Your task to perform on an android device: turn on location history Image 0: 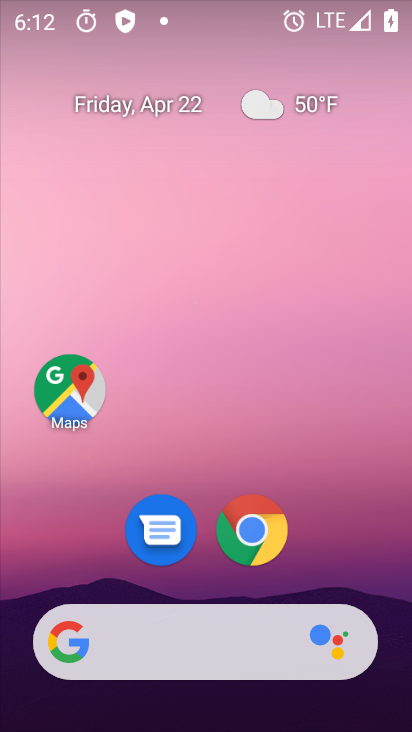
Step 0: drag from (329, 510) to (250, 28)
Your task to perform on an android device: turn on location history Image 1: 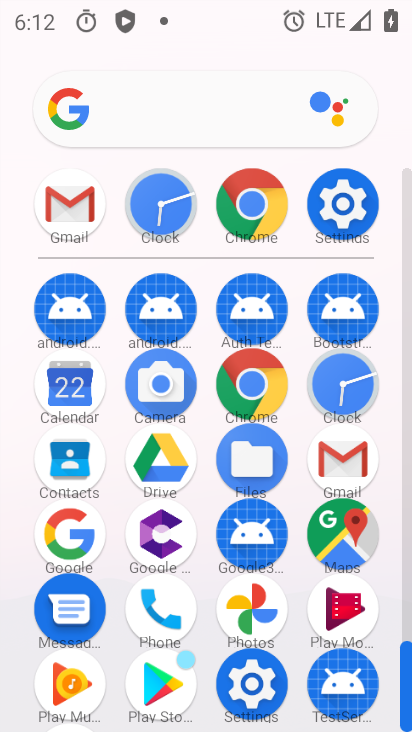
Step 1: click (335, 543)
Your task to perform on an android device: turn on location history Image 2: 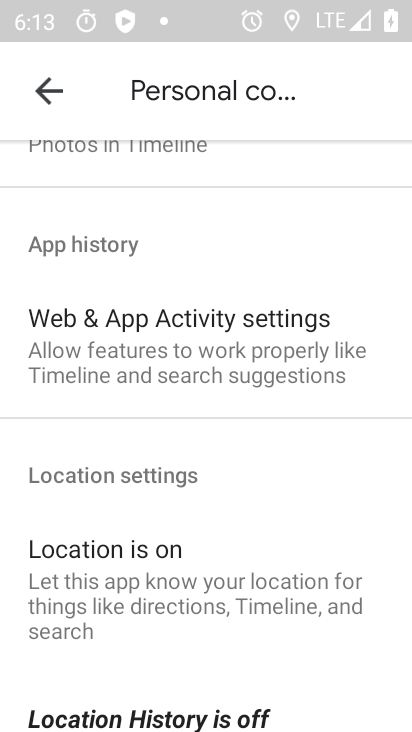
Step 2: click (236, 711)
Your task to perform on an android device: turn on location history Image 3: 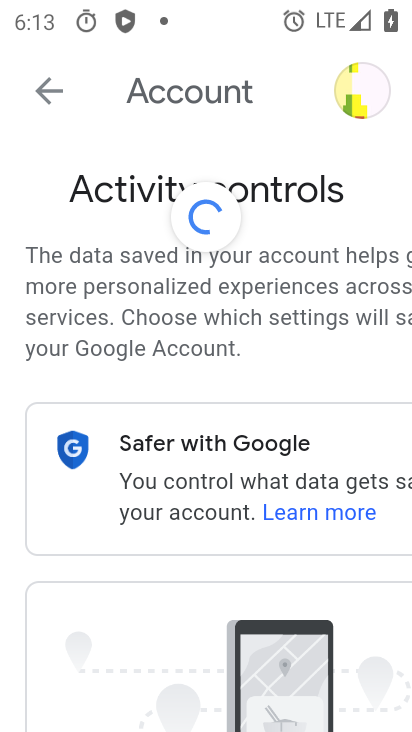
Step 3: drag from (365, 628) to (151, 197)
Your task to perform on an android device: turn on location history Image 4: 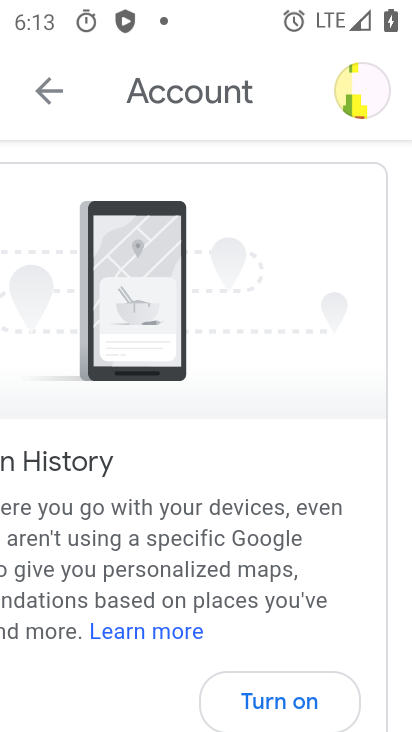
Step 4: drag from (212, 392) to (162, 136)
Your task to perform on an android device: turn on location history Image 5: 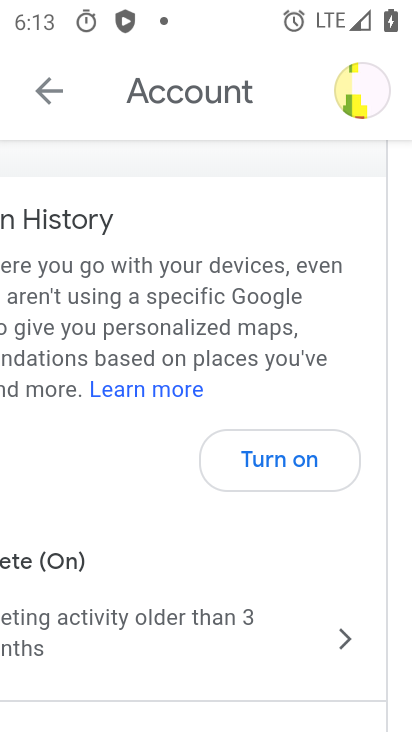
Step 5: click (289, 463)
Your task to perform on an android device: turn on location history Image 6: 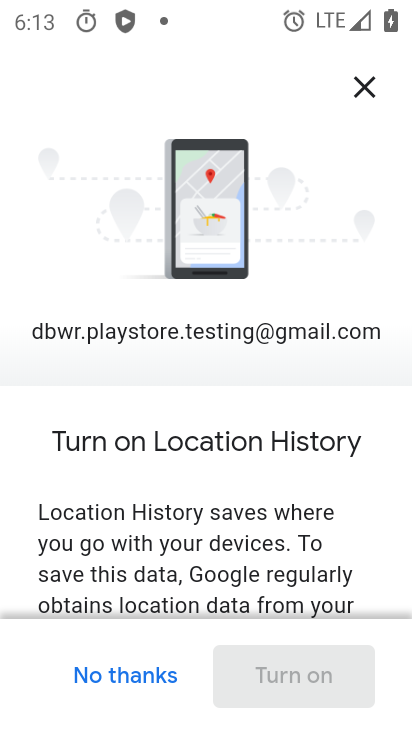
Step 6: drag from (279, 598) to (254, 130)
Your task to perform on an android device: turn on location history Image 7: 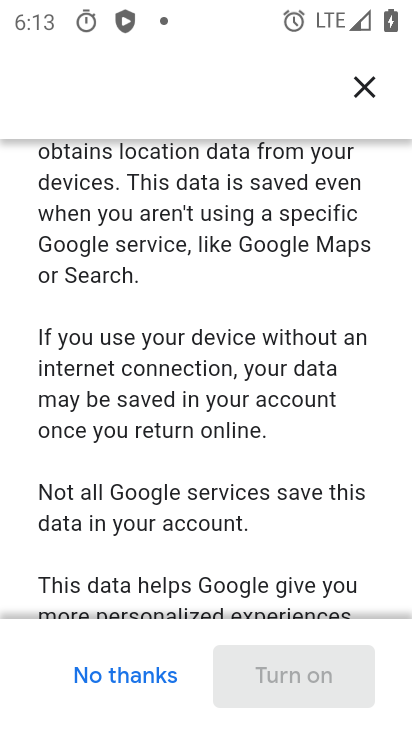
Step 7: drag from (229, 477) to (288, 190)
Your task to perform on an android device: turn on location history Image 8: 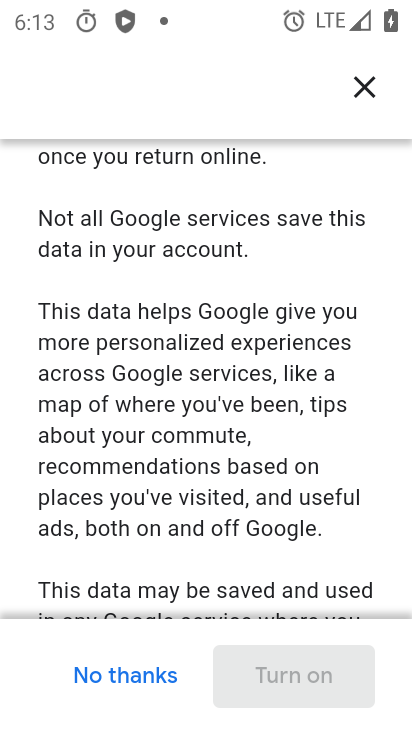
Step 8: drag from (279, 498) to (279, 213)
Your task to perform on an android device: turn on location history Image 9: 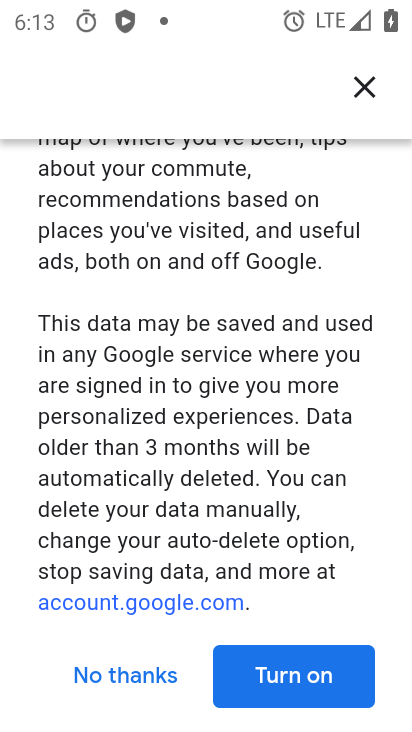
Step 9: drag from (261, 536) to (259, 435)
Your task to perform on an android device: turn on location history Image 10: 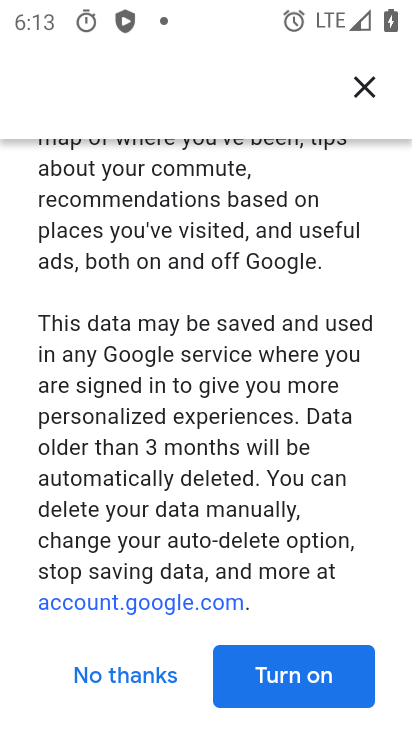
Step 10: click (301, 684)
Your task to perform on an android device: turn on location history Image 11: 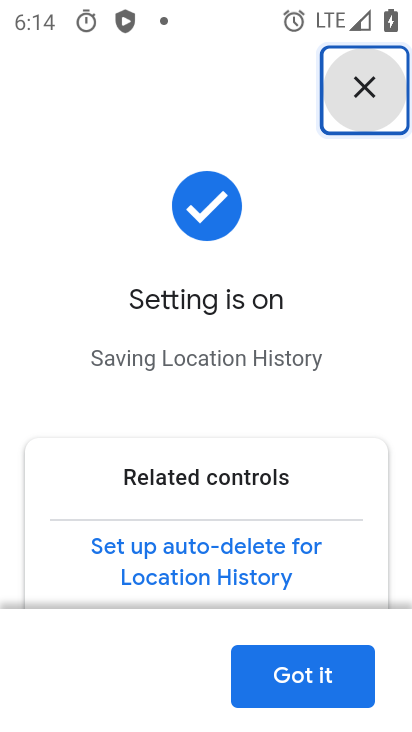
Step 11: click (311, 673)
Your task to perform on an android device: turn on location history Image 12: 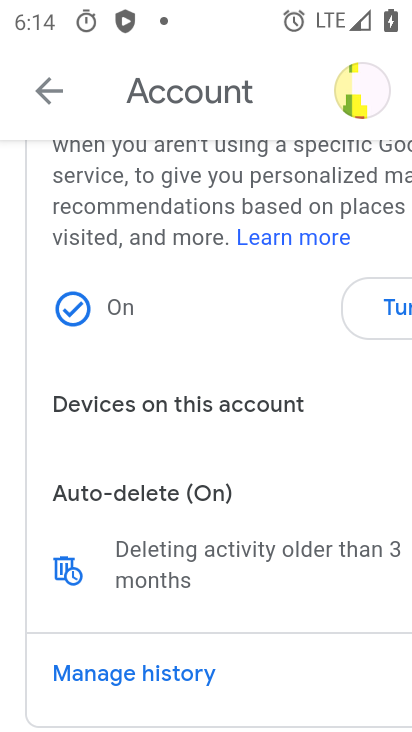
Step 12: task complete